Your task to perform on an android device: clear all cookies in the chrome app Image 0: 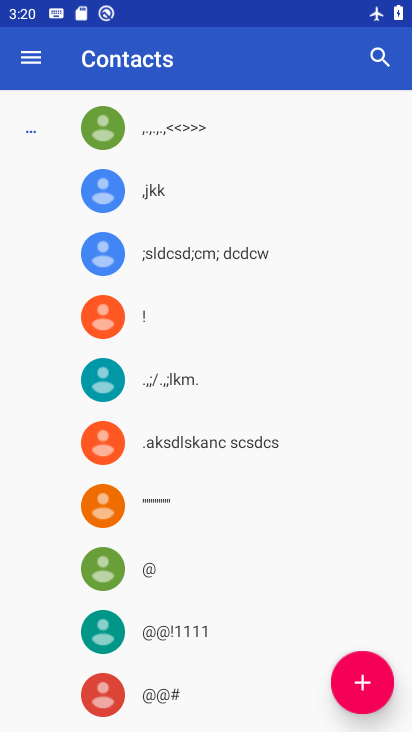
Step 0: press home button
Your task to perform on an android device: clear all cookies in the chrome app Image 1: 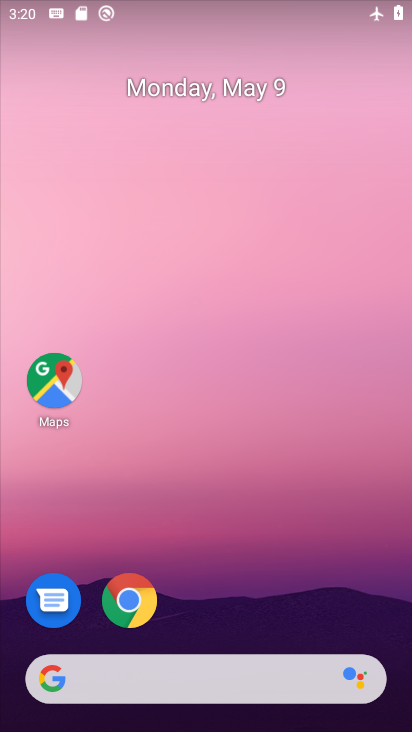
Step 1: click (134, 592)
Your task to perform on an android device: clear all cookies in the chrome app Image 2: 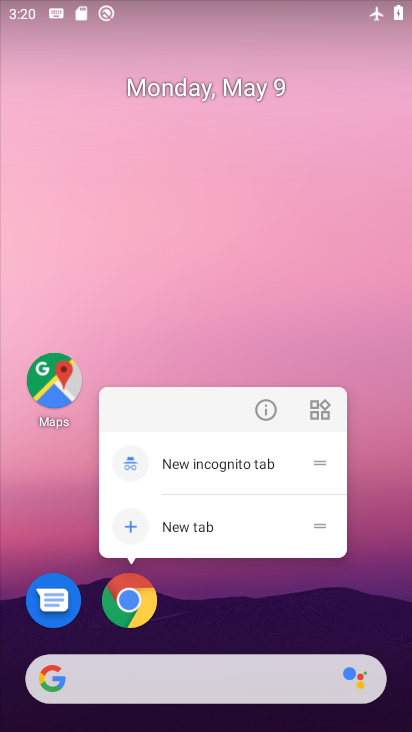
Step 2: click (133, 593)
Your task to perform on an android device: clear all cookies in the chrome app Image 3: 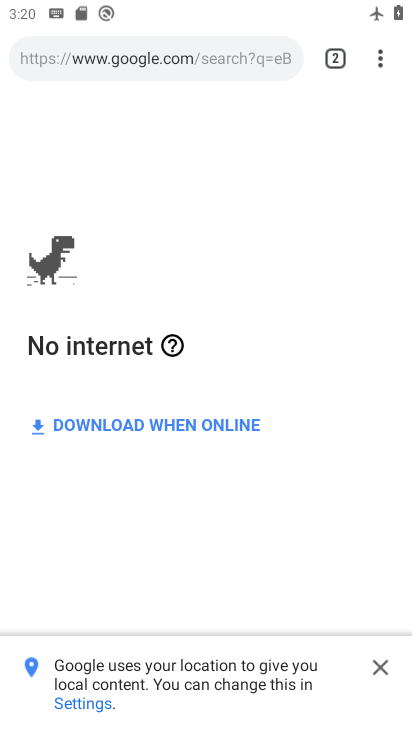
Step 3: click (378, 55)
Your task to perform on an android device: clear all cookies in the chrome app Image 4: 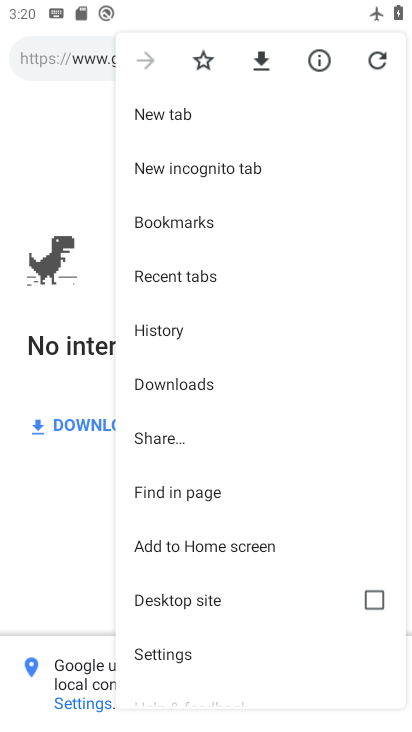
Step 4: click (181, 330)
Your task to perform on an android device: clear all cookies in the chrome app Image 5: 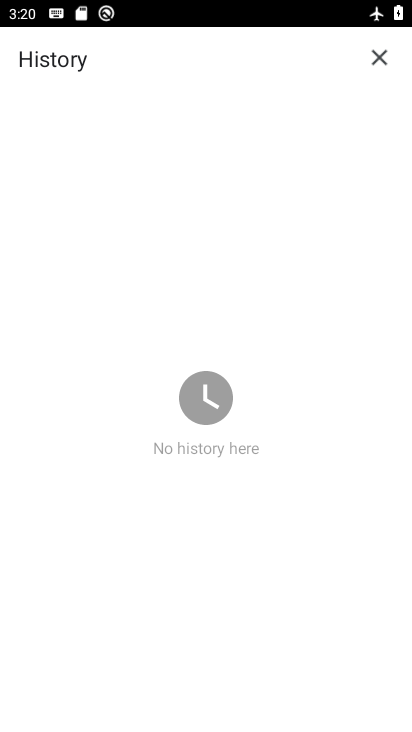
Step 5: task complete